Your task to perform on an android device: turn off translation in the chrome app Image 0: 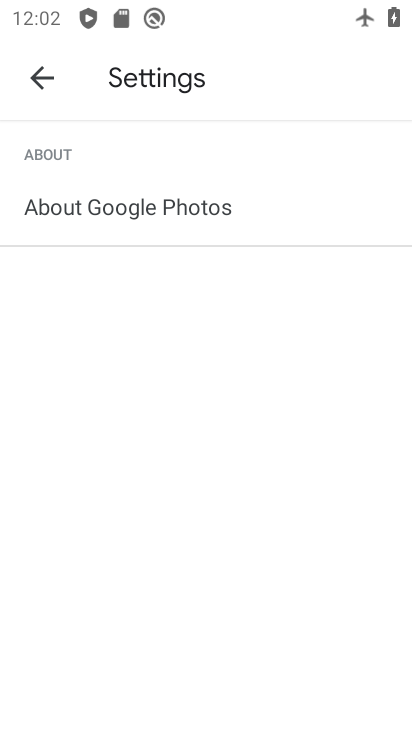
Step 0: press home button
Your task to perform on an android device: turn off translation in the chrome app Image 1: 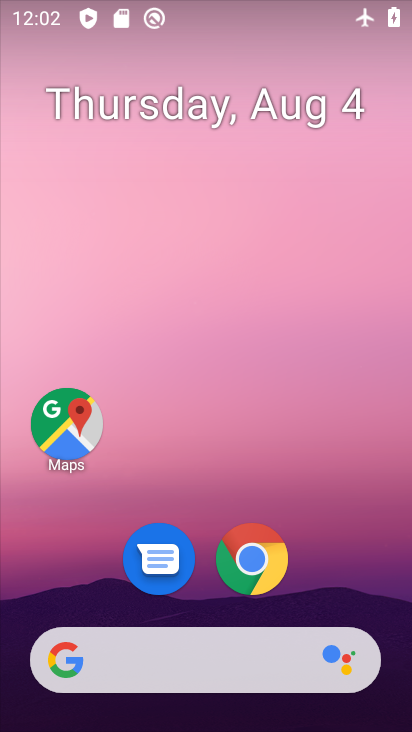
Step 1: click (256, 560)
Your task to perform on an android device: turn off translation in the chrome app Image 2: 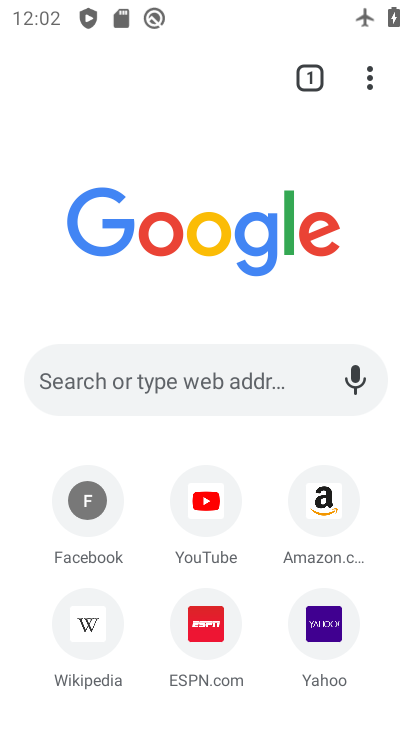
Step 2: click (372, 77)
Your task to perform on an android device: turn off translation in the chrome app Image 3: 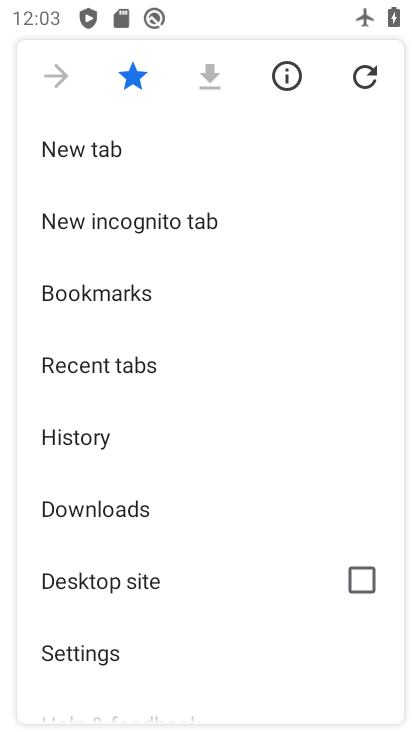
Step 3: drag from (114, 578) to (184, 479)
Your task to perform on an android device: turn off translation in the chrome app Image 4: 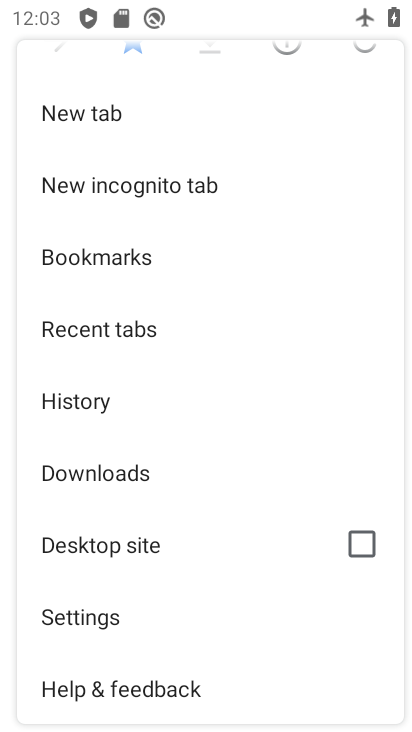
Step 4: click (90, 623)
Your task to perform on an android device: turn off translation in the chrome app Image 5: 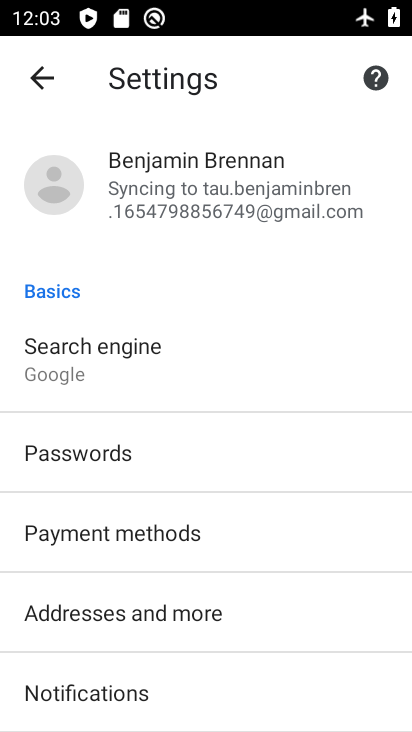
Step 5: drag from (102, 565) to (190, 460)
Your task to perform on an android device: turn off translation in the chrome app Image 6: 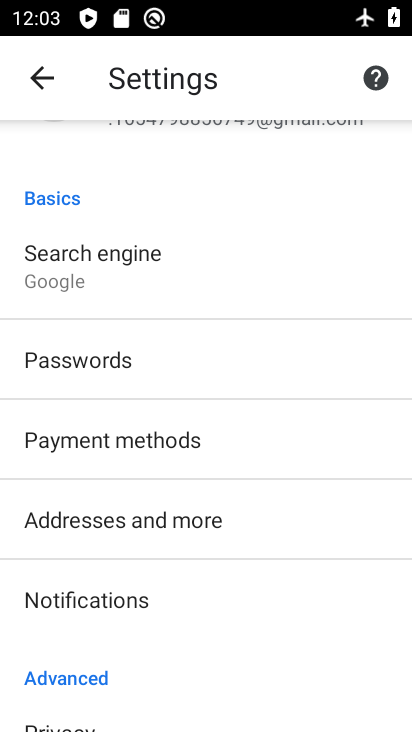
Step 6: drag from (127, 639) to (272, 478)
Your task to perform on an android device: turn off translation in the chrome app Image 7: 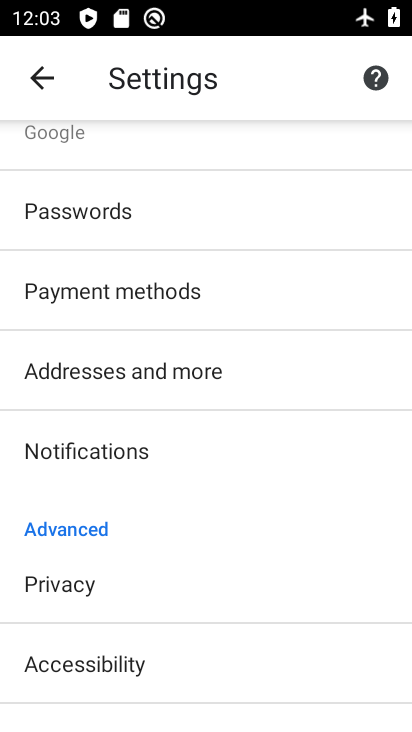
Step 7: drag from (171, 653) to (258, 543)
Your task to perform on an android device: turn off translation in the chrome app Image 8: 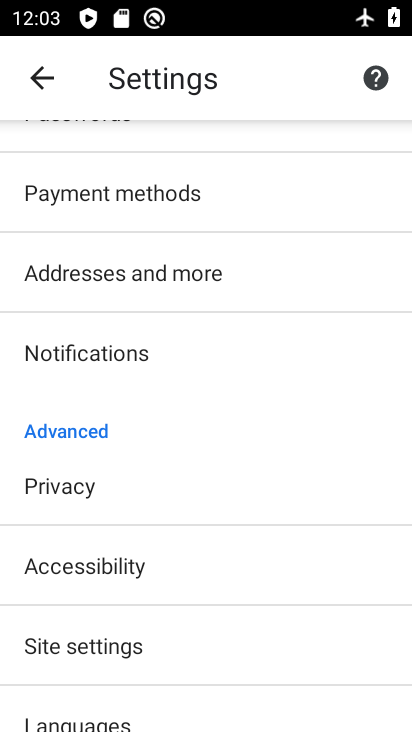
Step 8: drag from (187, 641) to (273, 539)
Your task to perform on an android device: turn off translation in the chrome app Image 9: 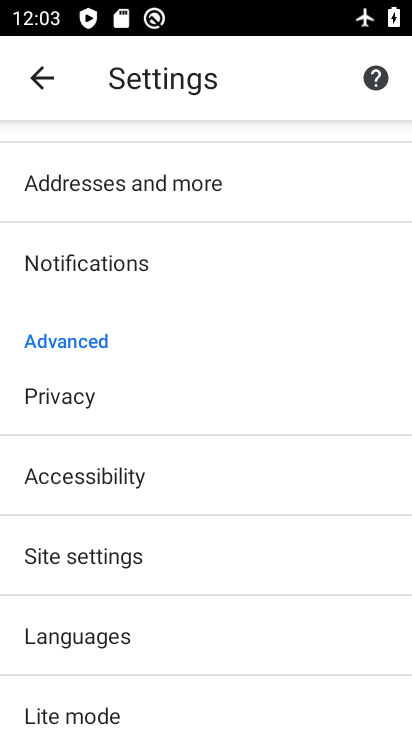
Step 9: click (110, 641)
Your task to perform on an android device: turn off translation in the chrome app Image 10: 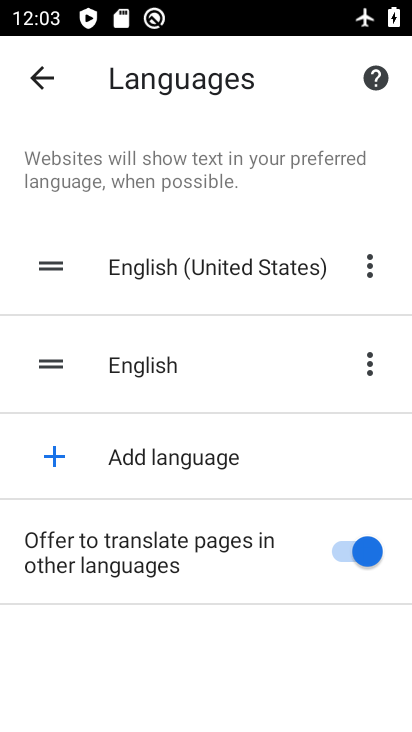
Step 10: click (353, 543)
Your task to perform on an android device: turn off translation in the chrome app Image 11: 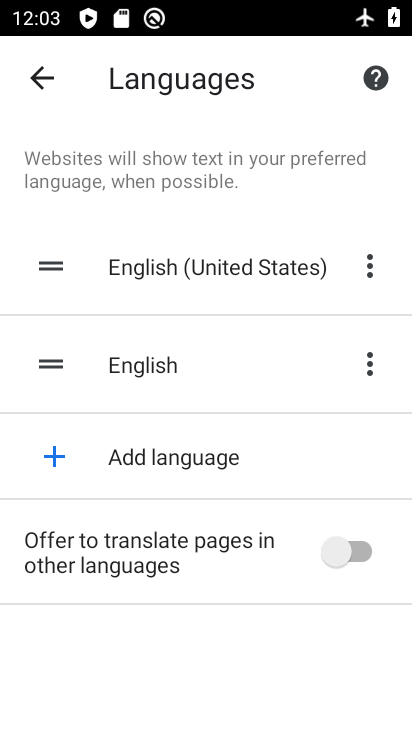
Step 11: task complete